Your task to perform on an android device: uninstall "Spotify" Image 0: 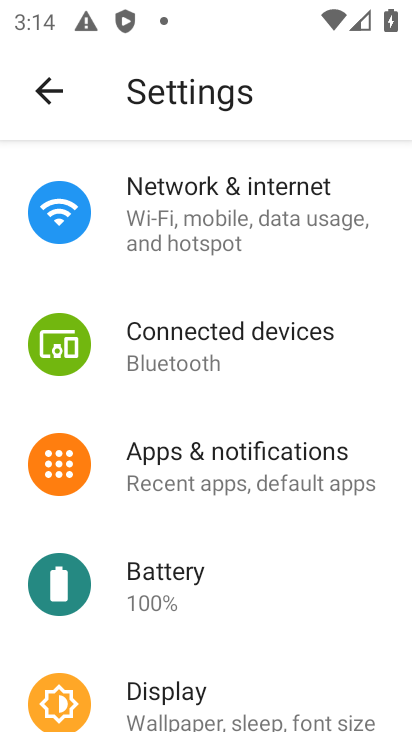
Step 0: press home button
Your task to perform on an android device: uninstall "Spotify" Image 1: 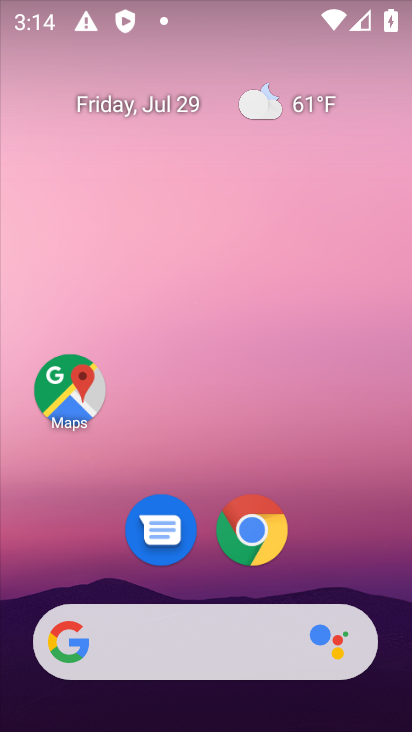
Step 1: drag from (331, 482) to (353, 4)
Your task to perform on an android device: uninstall "Spotify" Image 2: 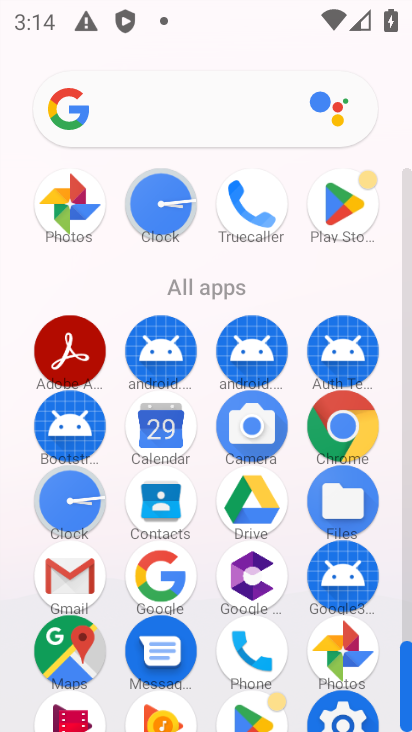
Step 2: click (342, 200)
Your task to perform on an android device: uninstall "Spotify" Image 3: 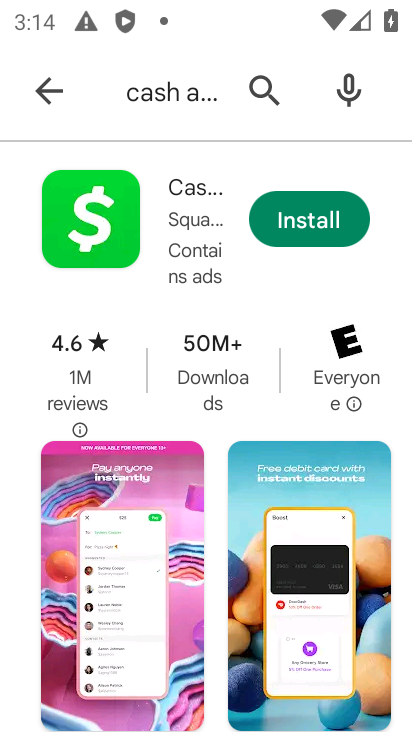
Step 3: click (274, 89)
Your task to perform on an android device: uninstall "Spotify" Image 4: 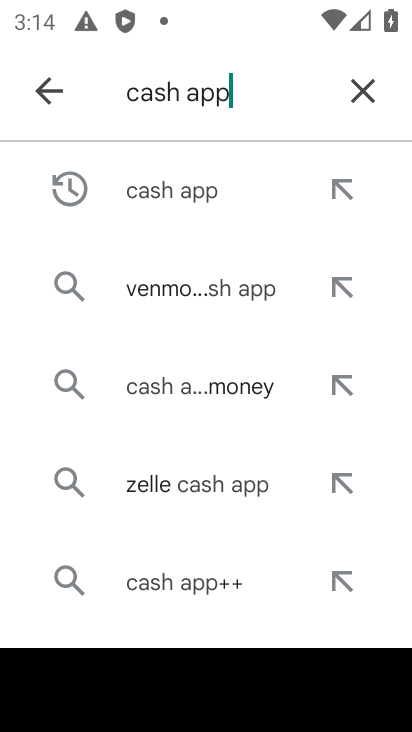
Step 4: click (380, 100)
Your task to perform on an android device: uninstall "Spotify" Image 5: 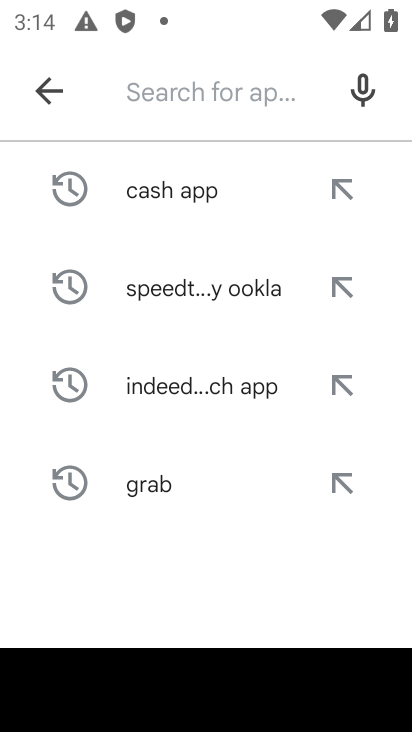
Step 5: type "Spotify"
Your task to perform on an android device: uninstall "Spotify" Image 6: 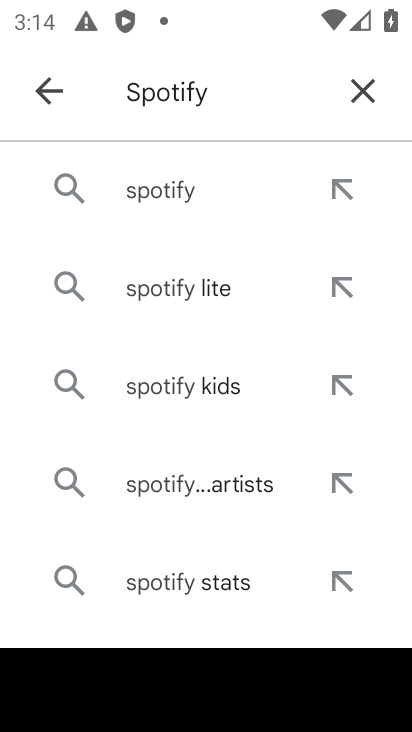
Step 6: click (155, 202)
Your task to perform on an android device: uninstall "Spotify" Image 7: 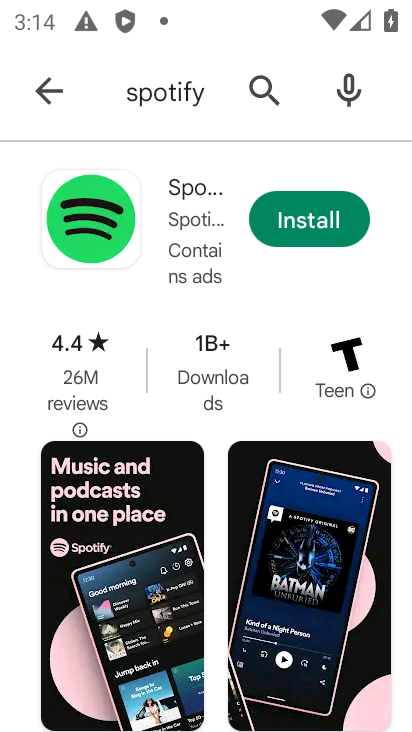
Step 7: task complete